Your task to perform on an android device: Open Google Maps and go to "Timeline" Image 0: 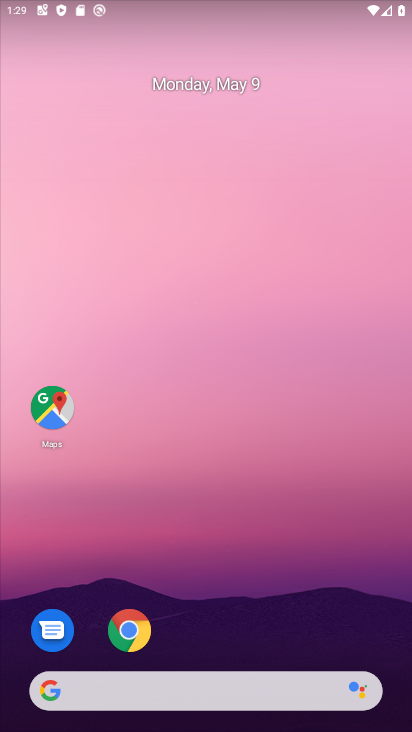
Step 0: drag from (271, 701) to (243, 342)
Your task to perform on an android device: Open Google Maps and go to "Timeline" Image 1: 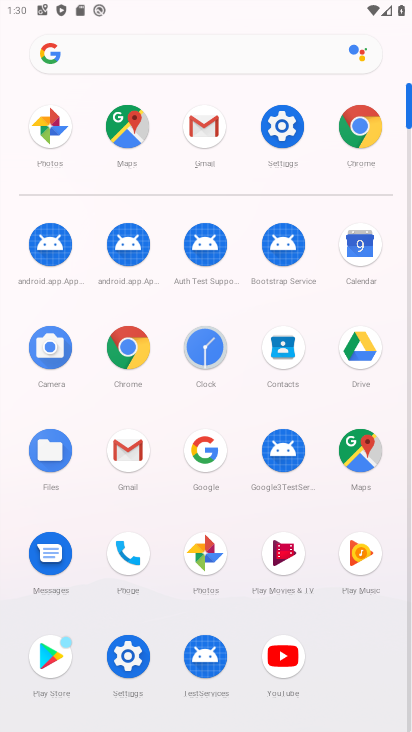
Step 1: click (120, 148)
Your task to perform on an android device: Open Google Maps and go to "Timeline" Image 2: 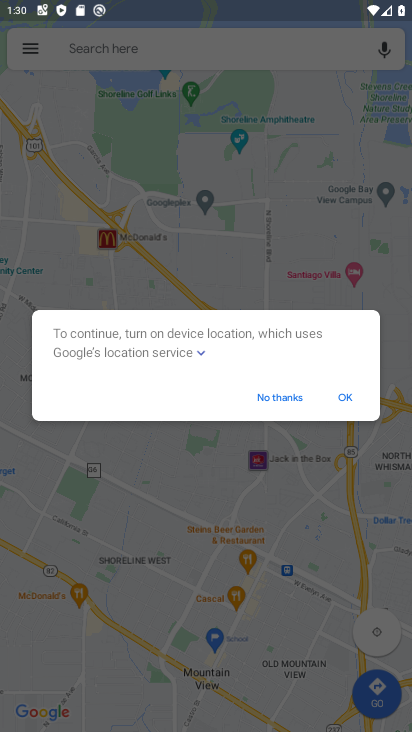
Step 2: click (272, 400)
Your task to perform on an android device: Open Google Maps and go to "Timeline" Image 3: 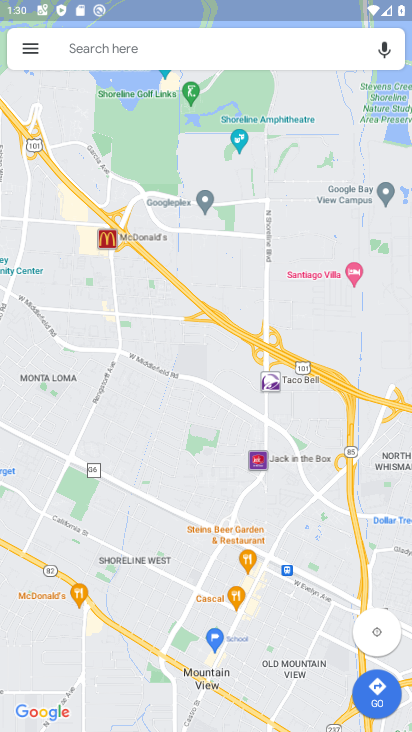
Step 3: click (22, 64)
Your task to perform on an android device: Open Google Maps and go to "Timeline" Image 4: 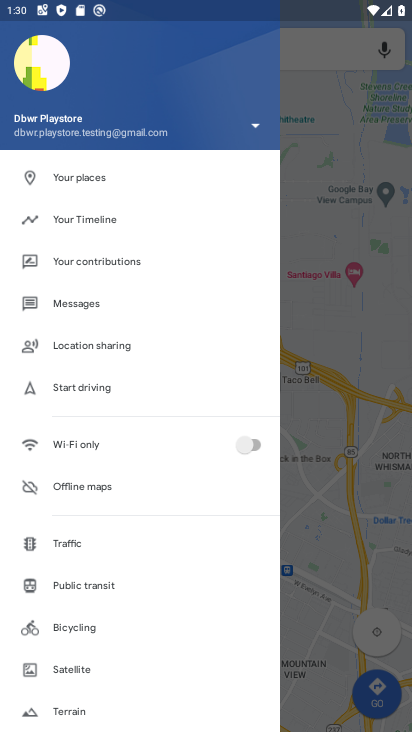
Step 4: click (91, 219)
Your task to perform on an android device: Open Google Maps and go to "Timeline" Image 5: 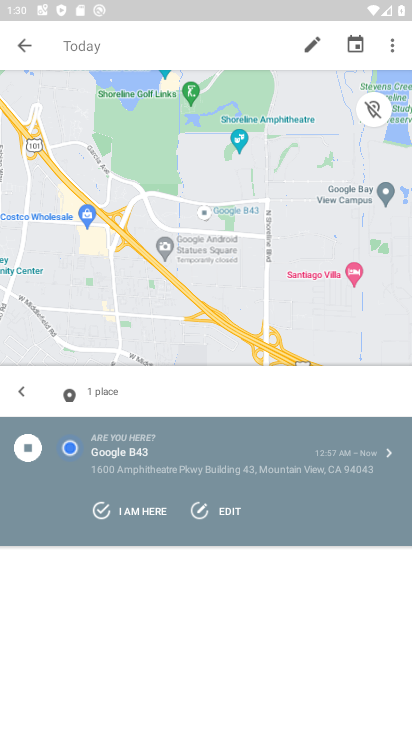
Step 5: task complete